Your task to perform on an android device: Open the web browser Image 0: 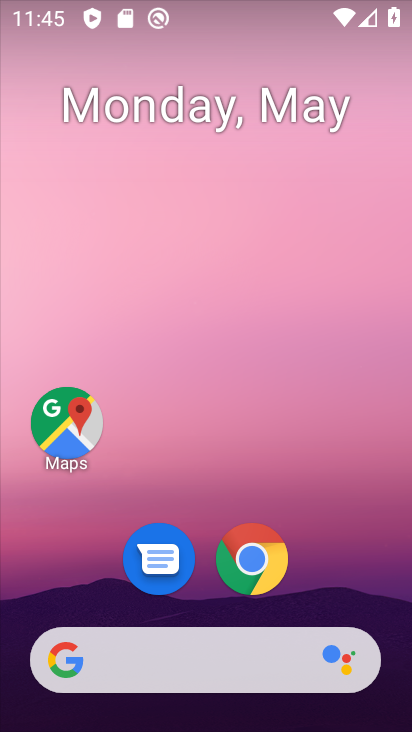
Step 0: click (262, 555)
Your task to perform on an android device: Open the web browser Image 1: 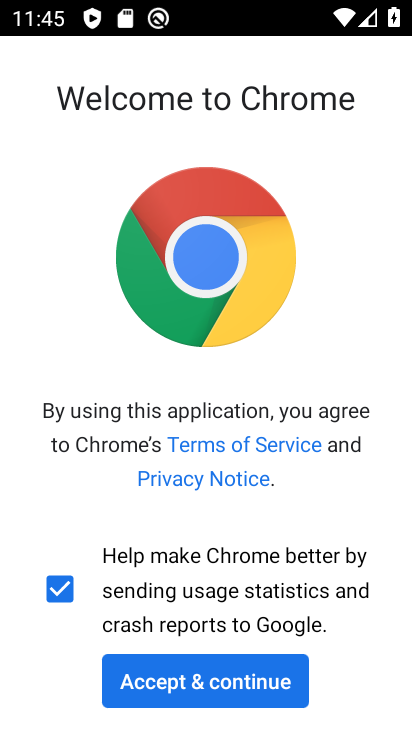
Step 1: click (198, 686)
Your task to perform on an android device: Open the web browser Image 2: 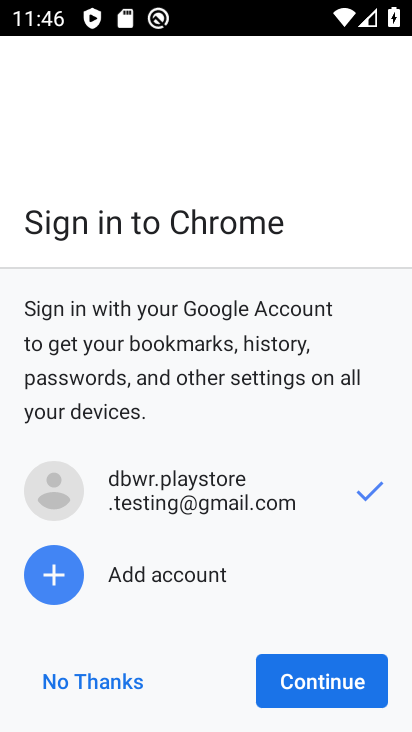
Step 2: click (337, 672)
Your task to perform on an android device: Open the web browser Image 3: 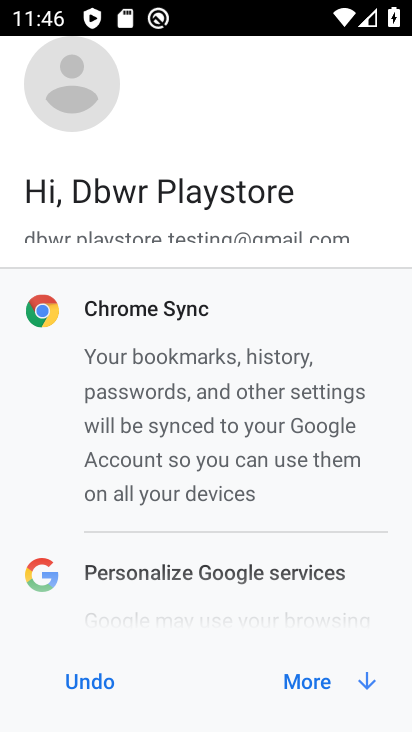
Step 3: click (320, 679)
Your task to perform on an android device: Open the web browser Image 4: 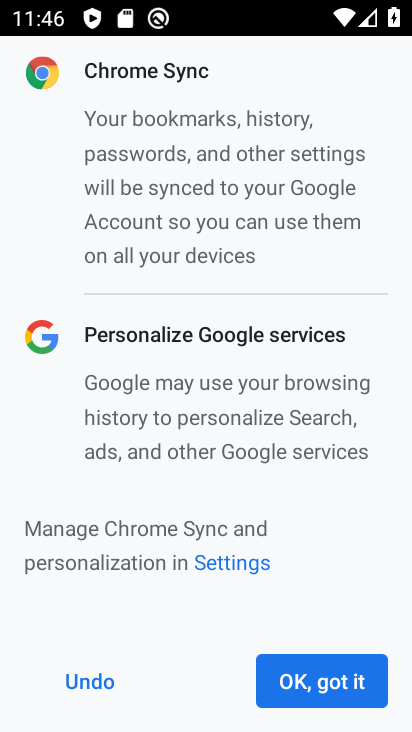
Step 4: click (313, 679)
Your task to perform on an android device: Open the web browser Image 5: 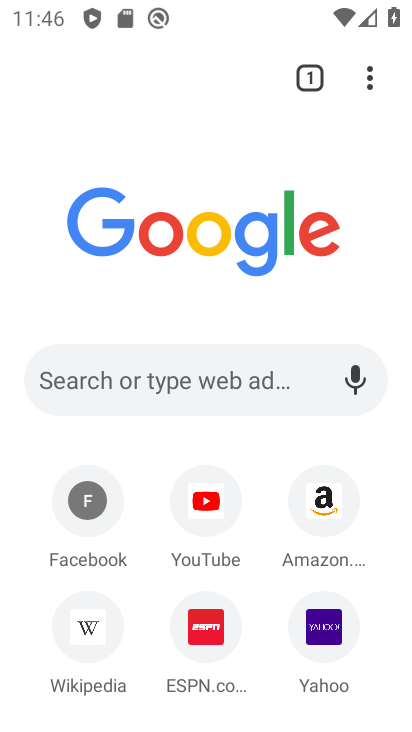
Step 5: task complete